Your task to perform on an android device: How much does a 3 bedroom apartment rent for in Boston? Image 0: 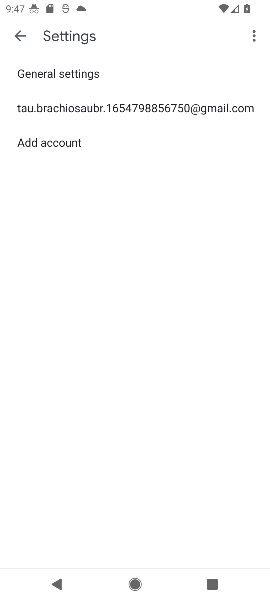
Step 0: press home button
Your task to perform on an android device: How much does a 3 bedroom apartment rent for in Boston? Image 1: 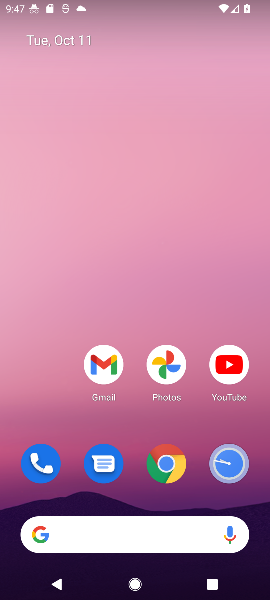
Step 1: drag from (130, 502) to (136, 46)
Your task to perform on an android device: How much does a 3 bedroom apartment rent for in Boston? Image 2: 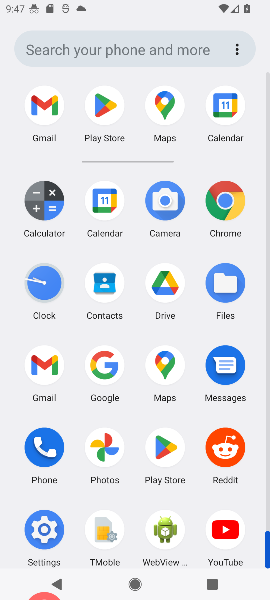
Step 2: click (98, 359)
Your task to perform on an android device: How much does a 3 bedroom apartment rent for in Boston? Image 3: 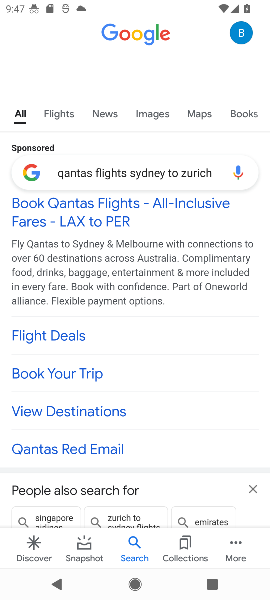
Step 3: click (148, 167)
Your task to perform on an android device: How much does a 3 bedroom apartment rent for in Boston? Image 4: 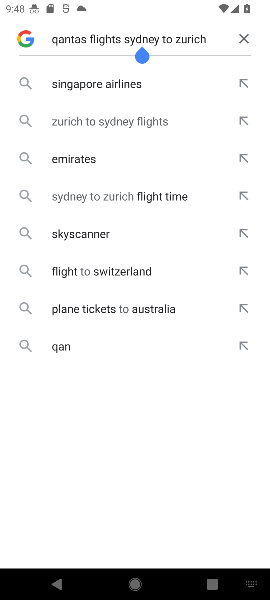
Step 4: click (246, 45)
Your task to perform on an android device: How much does a 3 bedroom apartment rent for in Boston? Image 5: 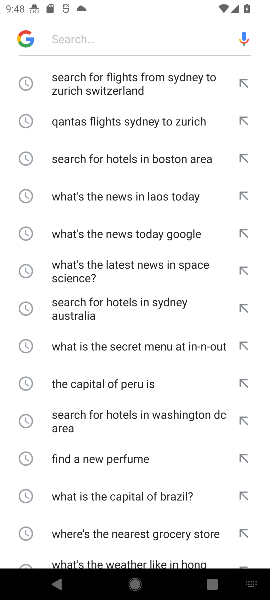
Step 5: click (120, 33)
Your task to perform on an android device: How much does a 3 bedroom apartment rent for in Boston? Image 6: 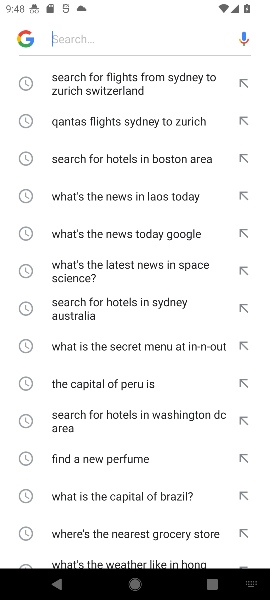
Step 6: type "How much does a 3 bedroom apartment rent for in Boston? "
Your task to perform on an android device: How much does a 3 bedroom apartment rent for in Boston? Image 7: 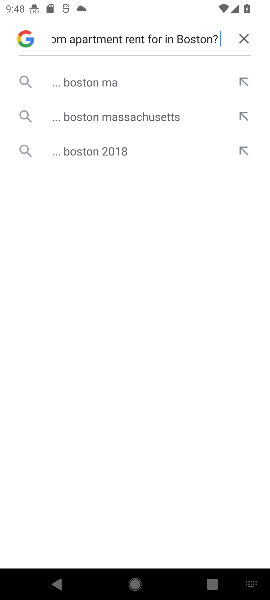
Step 7: click (107, 83)
Your task to perform on an android device: How much does a 3 bedroom apartment rent for in Boston? Image 8: 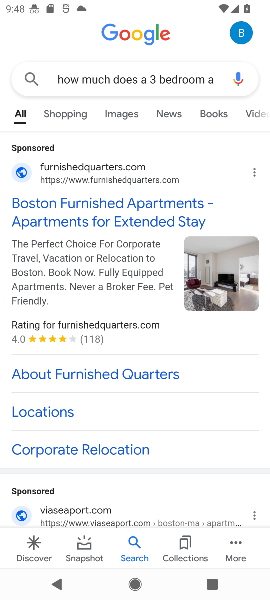
Step 8: click (125, 214)
Your task to perform on an android device: How much does a 3 bedroom apartment rent for in Boston? Image 9: 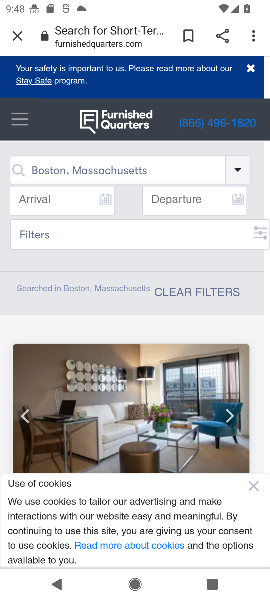
Step 9: task complete